Your task to perform on an android device: turn off improve location accuracy Image 0: 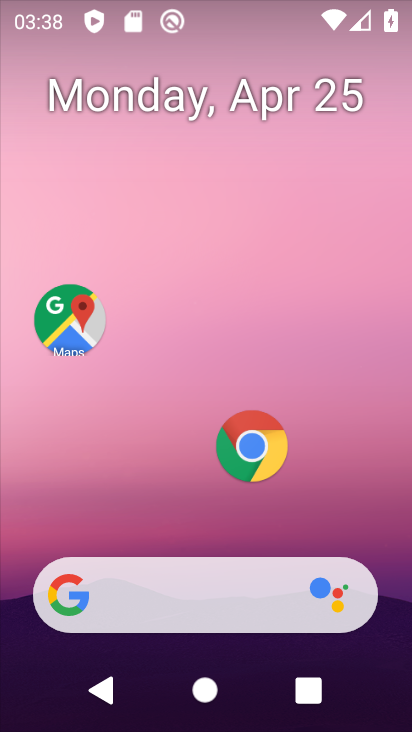
Step 0: drag from (203, 452) to (211, 99)
Your task to perform on an android device: turn off improve location accuracy Image 1: 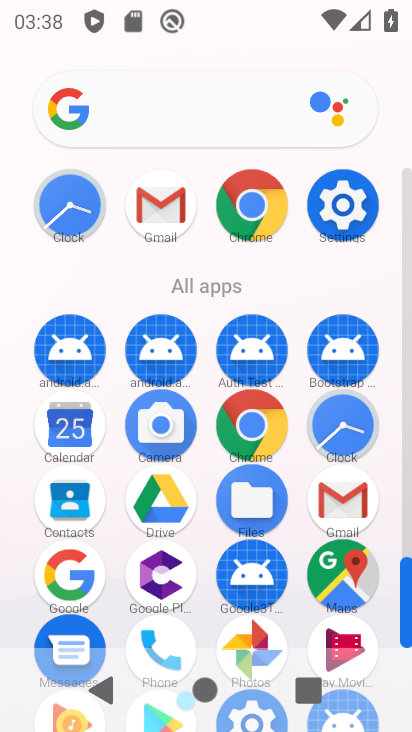
Step 1: click (349, 205)
Your task to perform on an android device: turn off improve location accuracy Image 2: 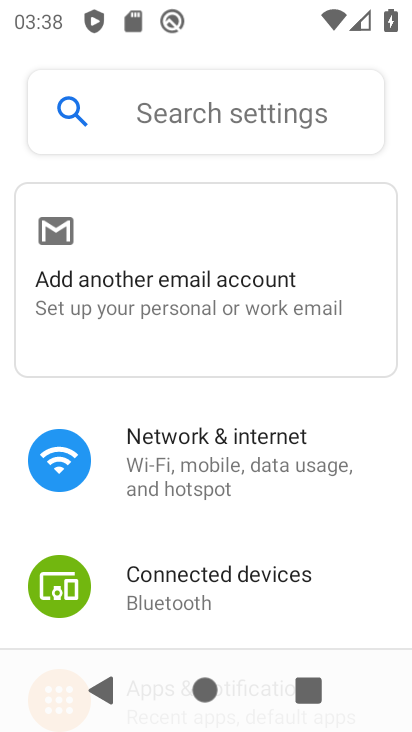
Step 2: drag from (240, 582) to (267, 168)
Your task to perform on an android device: turn off improve location accuracy Image 3: 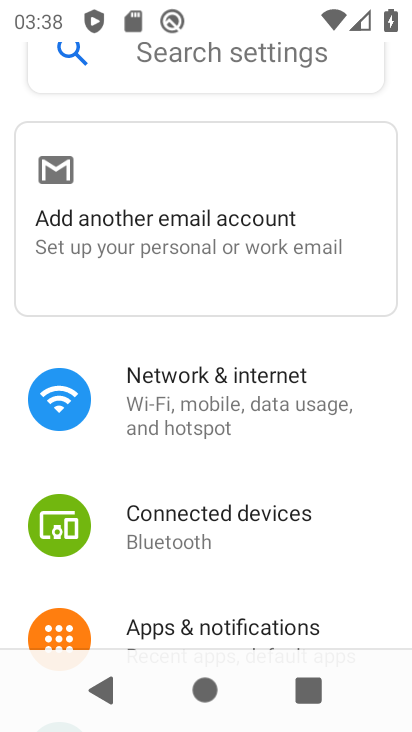
Step 3: drag from (159, 561) to (218, 157)
Your task to perform on an android device: turn off improve location accuracy Image 4: 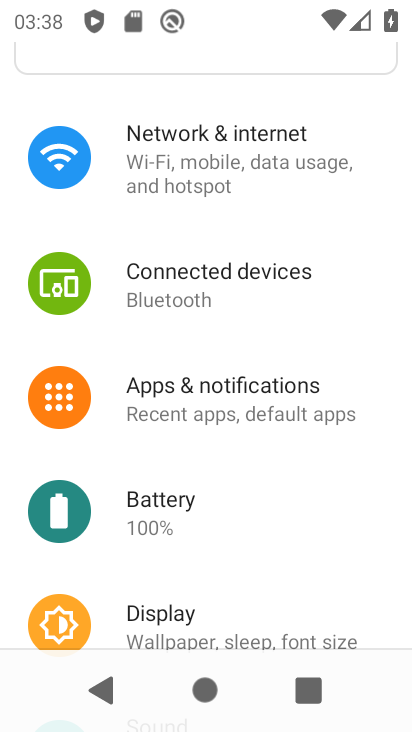
Step 4: drag from (135, 544) to (239, 220)
Your task to perform on an android device: turn off improve location accuracy Image 5: 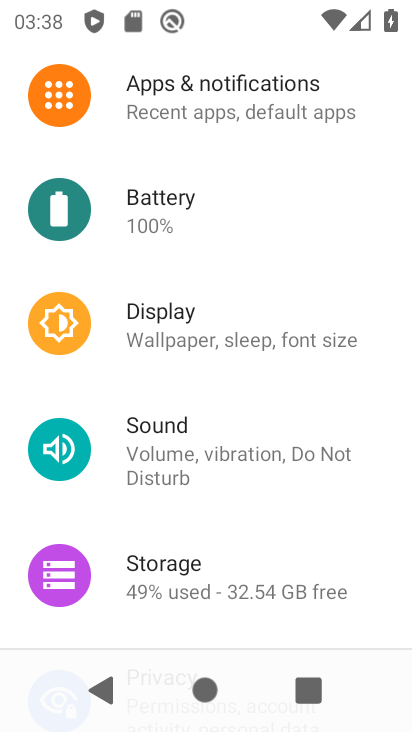
Step 5: drag from (108, 572) to (85, 191)
Your task to perform on an android device: turn off improve location accuracy Image 6: 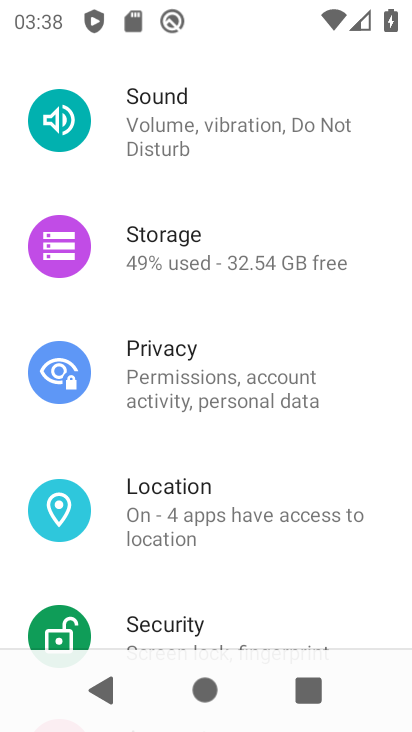
Step 6: click (138, 536)
Your task to perform on an android device: turn off improve location accuracy Image 7: 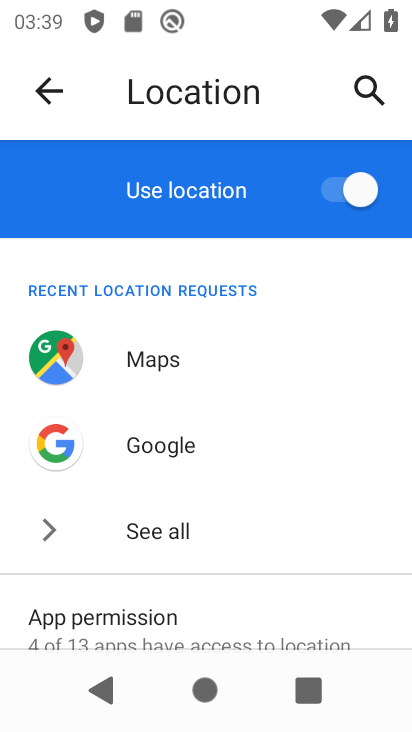
Step 7: drag from (137, 641) to (251, 192)
Your task to perform on an android device: turn off improve location accuracy Image 8: 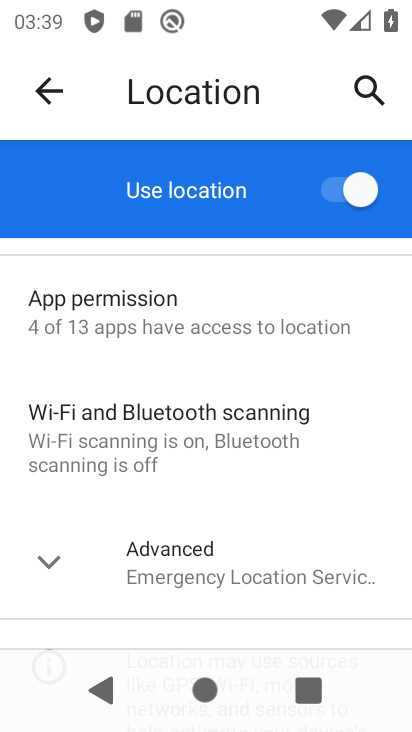
Step 8: click (167, 555)
Your task to perform on an android device: turn off improve location accuracy Image 9: 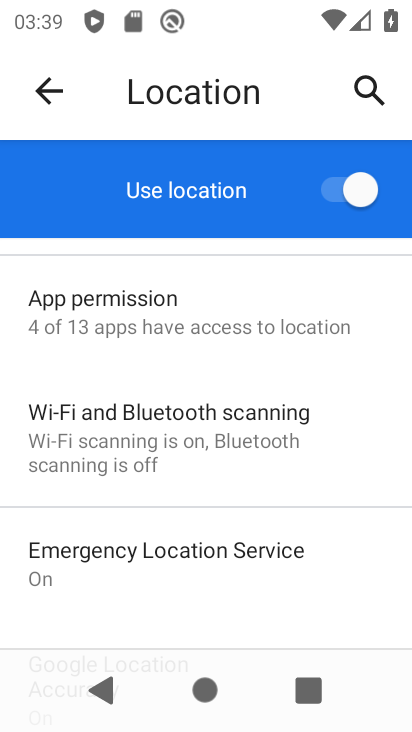
Step 9: drag from (188, 621) to (242, 124)
Your task to perform on an android device: turn off improve location accuracy Image 10: 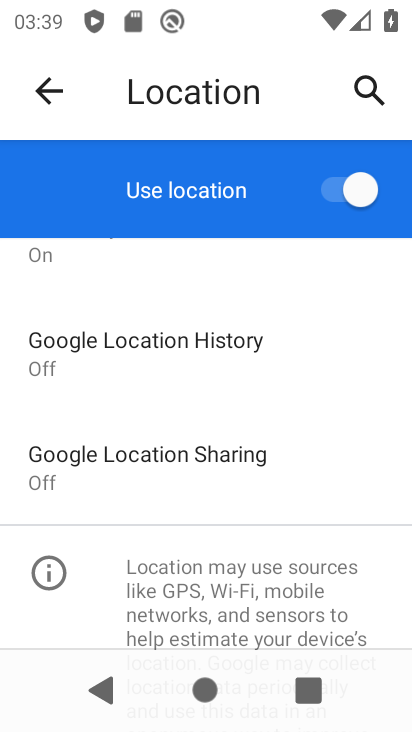
Step 10: drag from (189, 308) to (200, 555)
Your task to perform on an android device: turn off improve location accuracy Image 11: 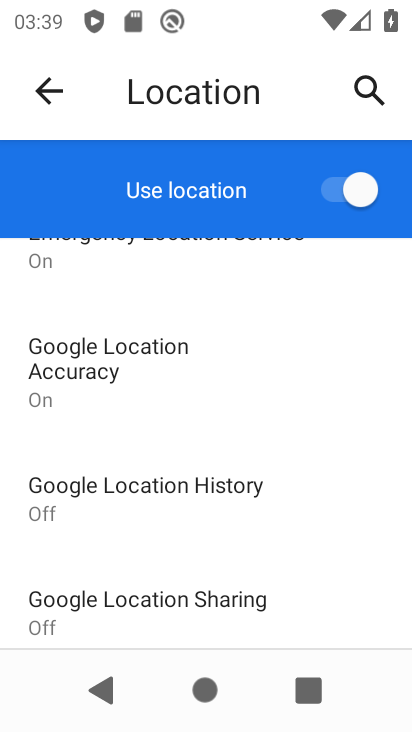
Step 11: click (140, 388)
Your task to perform on an android device: turn off improve location accuracy Image 12: 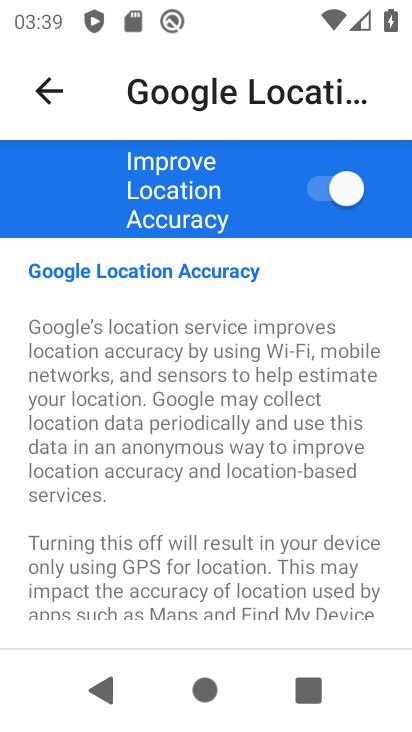
Step 12: click (316, 181)
Your task to perform on an android device: turn off improve location accuracy Image 13: 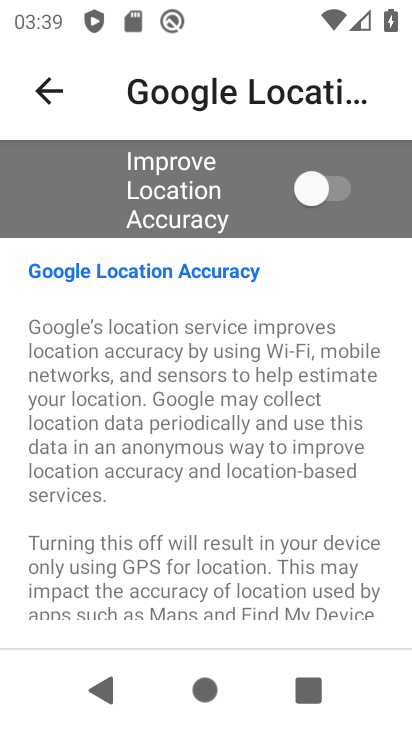
Step 13: task complete